Your task to perform on an android device: What's on my calendar tomorrow? Image 0: 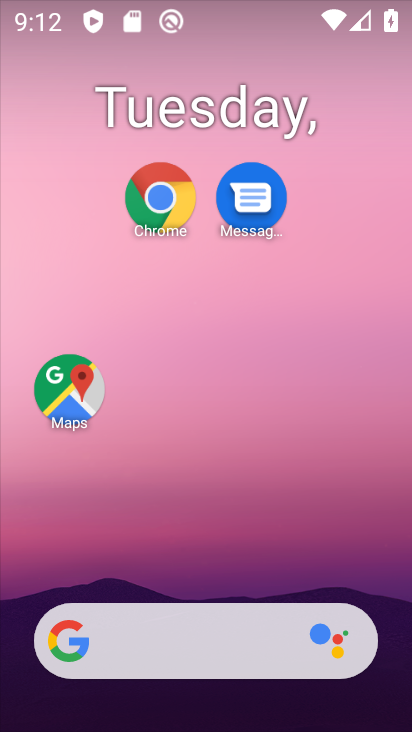
Step 0: drag from (238, 565) to (244, 29)
Your task to perform on an android device: What's on my calendar tomorrow? Image 1: 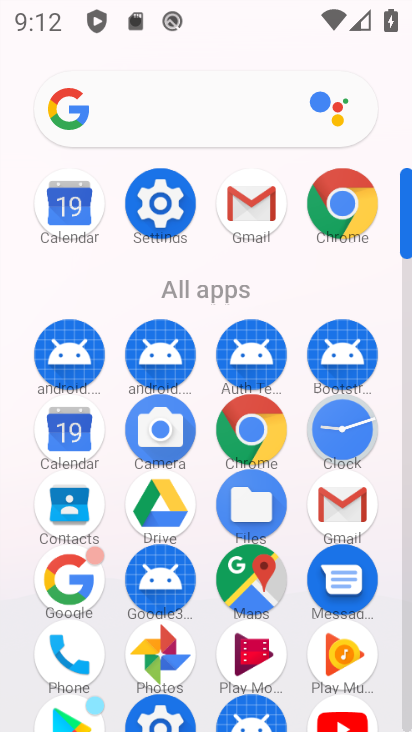
Step 1: click (69, 423)
Your task to perform on an android device: What's on my calendar tomorrow? Image 2: 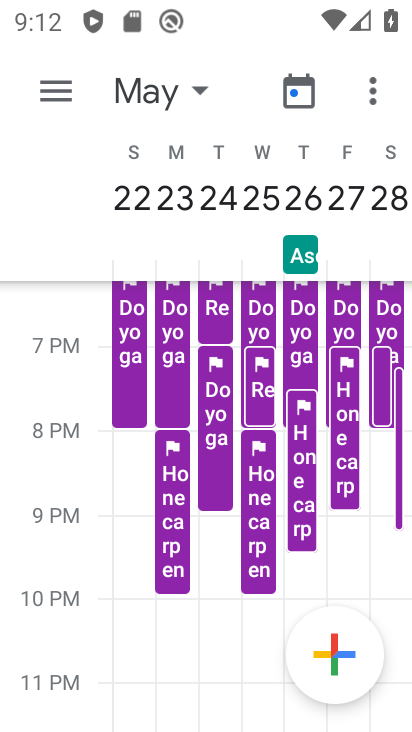
Step 2: click (282, 84)
Your task to perform on an android device: What's on my calendar tomorrow? Image 3: 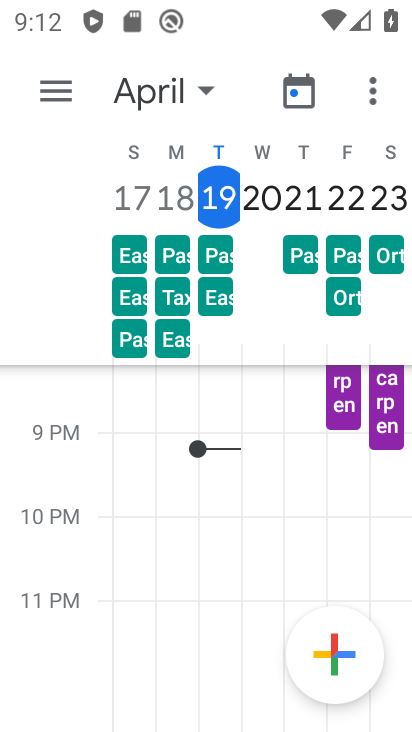
Step 3: click (253, 174)
Your task to perform on an android device: What's on my calendar tomorrow? Image 4: 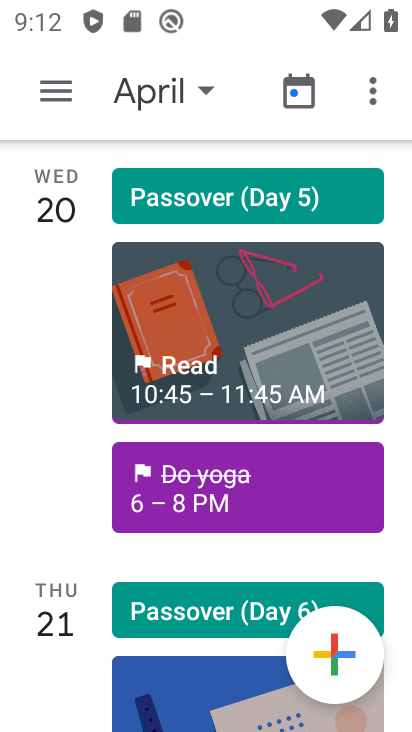
Step 4: task complete